Your task to perform on an android device: Open the Play Movies app and select the watchlist tab. Image 0: 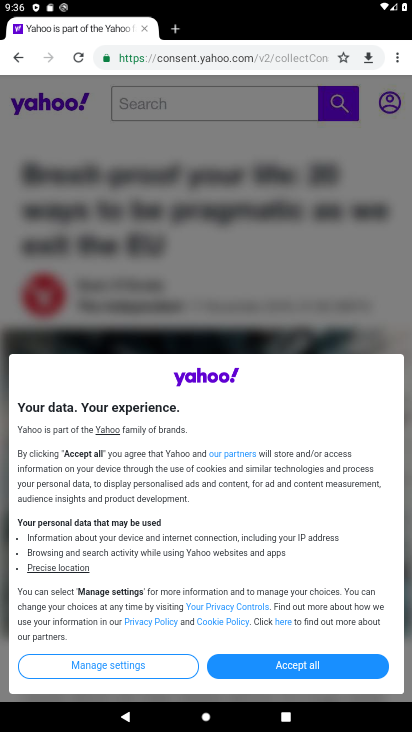
Step 0: press home button
Your task to perform on an android device: Open the Play Movies app and select the watchlist tab. Image 1: 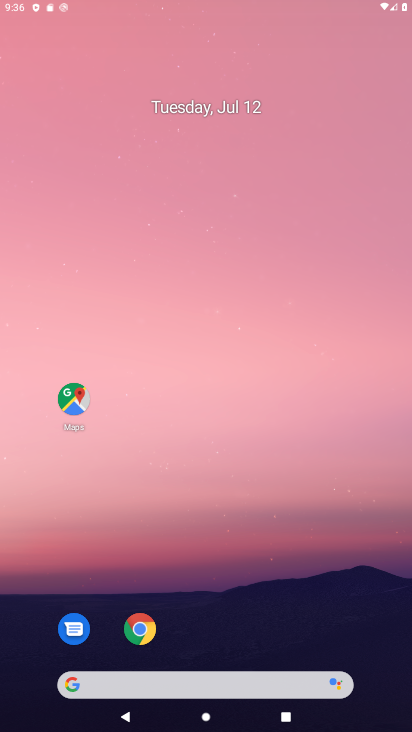
Step 1: drag from (334, 572) to (141, 51)
Your task to perform on an android device: Open the Play Movies app and select the watchlist tab. Image 2: 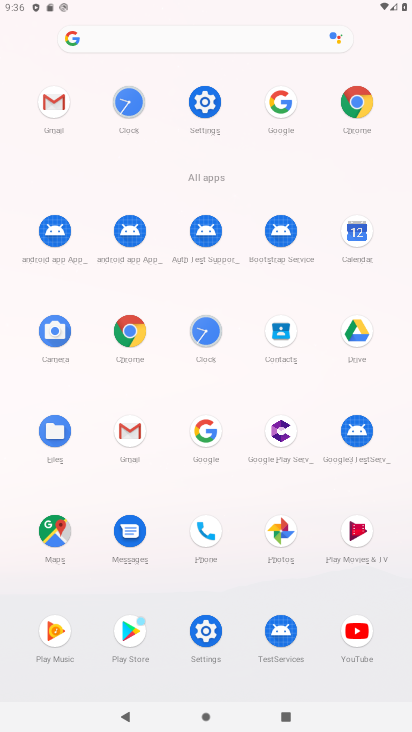
Step 2: click (372, 535)
Your task to perform on an android device: Open the Play Movies app and select the watchlist tab. Image 3: 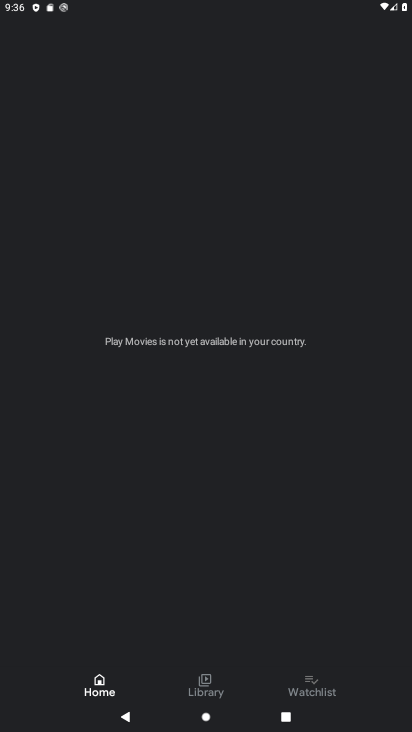
Step 3: click (320, 688)
Your task to perform on an android device: Open the Play Movies app and select the watchlist tab. Image 4: 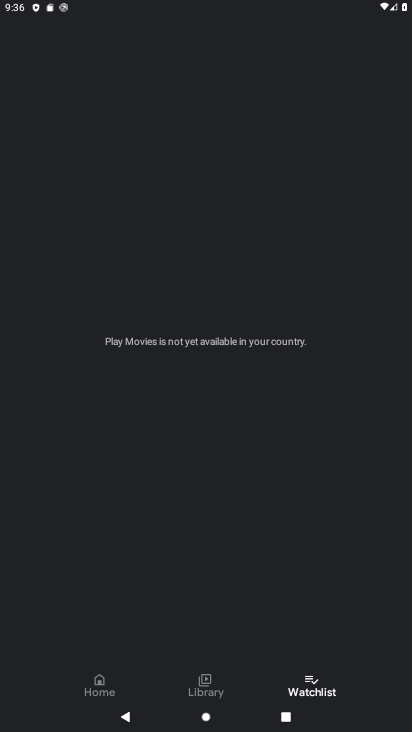
Step 4: task complete